Your task to perform on an android device: change notifications settings Image 0: 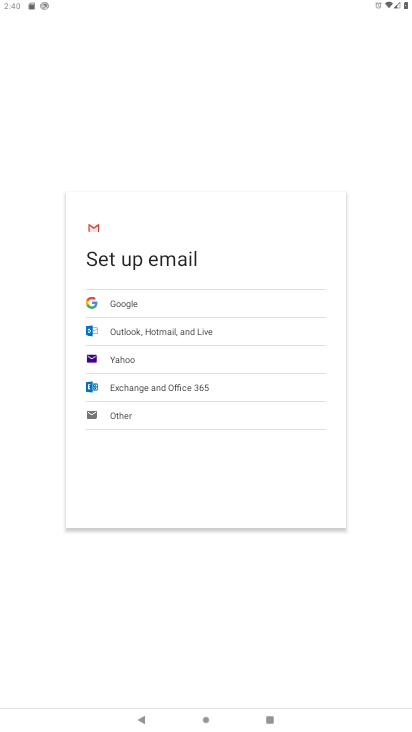
Step 0: press home button
Your task to perform on an android device: change notifications settings Image 1: 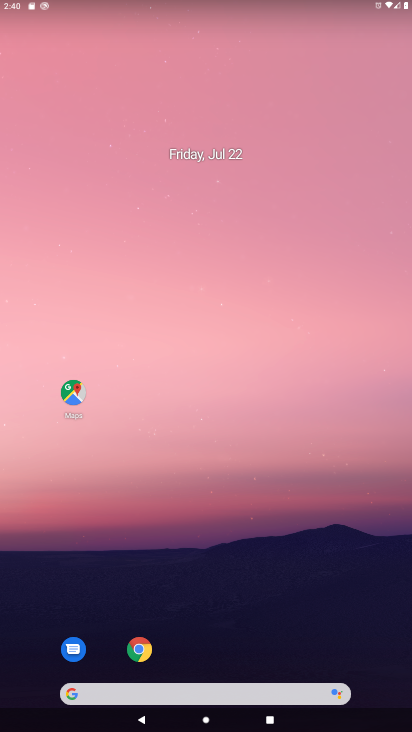
Step 1: drag from (230, 724) to (230, 244)
Your task to perform on an android device: change notifications settings Image 2: 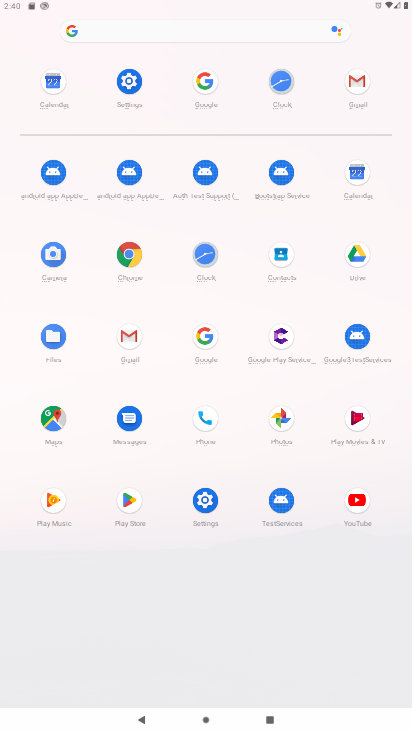
Step 2: click (131, 78)
Your task to perform on an android device: change notifications settings Image 3: 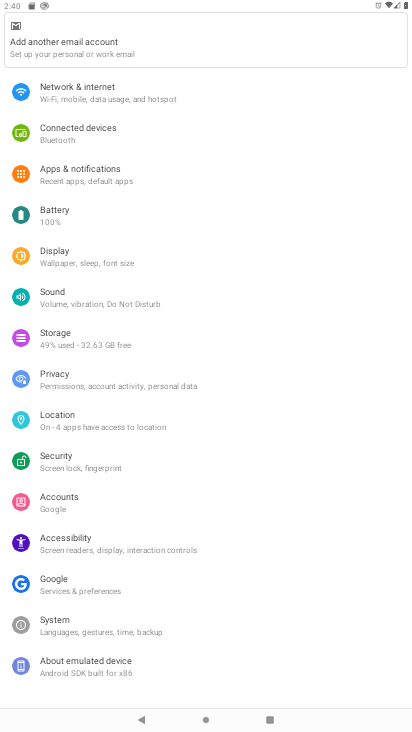
Step 3: click (91, 178)
Your task to perform on an android device: change notifications settings Image 4: 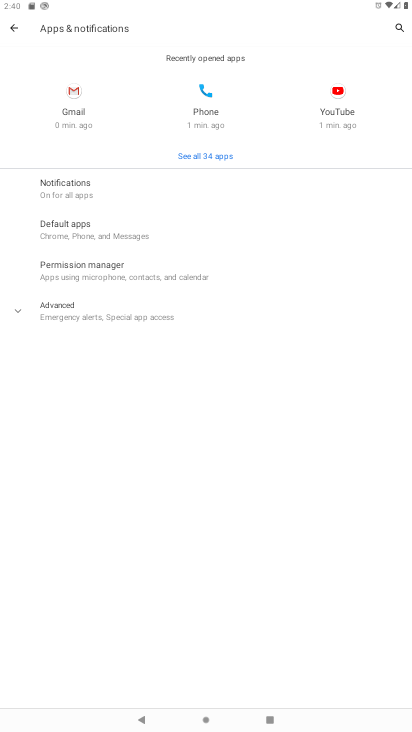
Step 4: click (69, 191)
Your task to perform on an android device: change notifications settings Image 5: 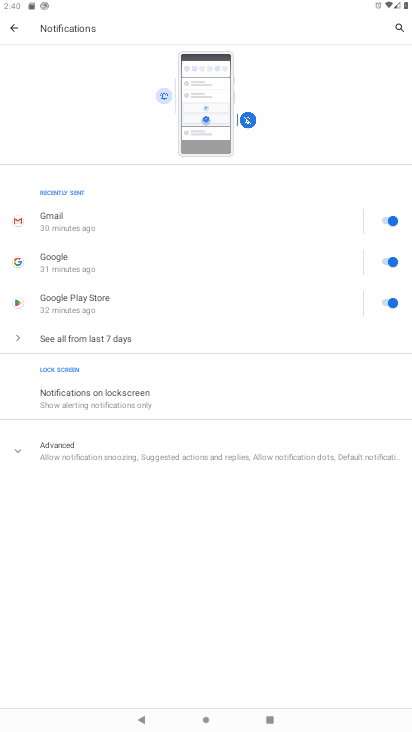
Step 5: click (90, 455)
Your task to perform on an android device: change notifications settings Image 6: 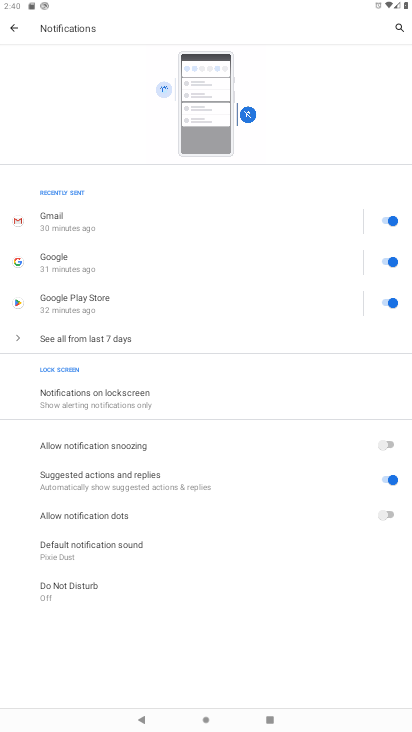
Step 6: click (392, 447)
Your task to perform on an android device: change notifications settings Image 7: 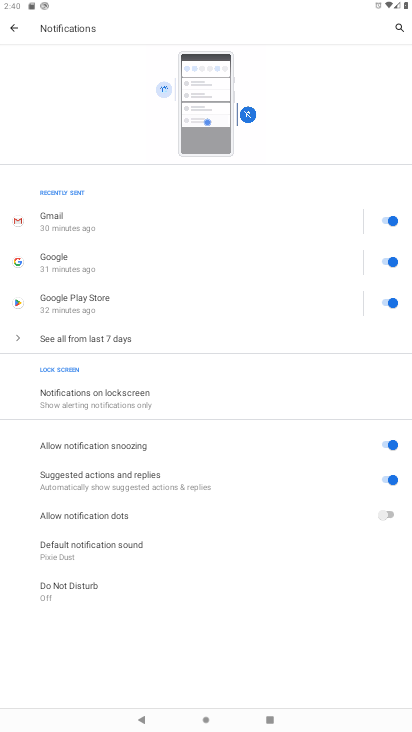
Step 7: task complete